Your task to perform on an android device: Open maps Image 0: 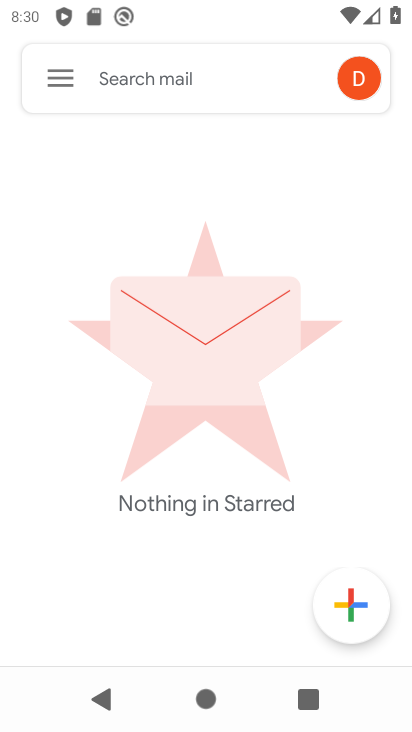
Step 0: press home button
Your task to perform on an android device: Open maps Image 1: 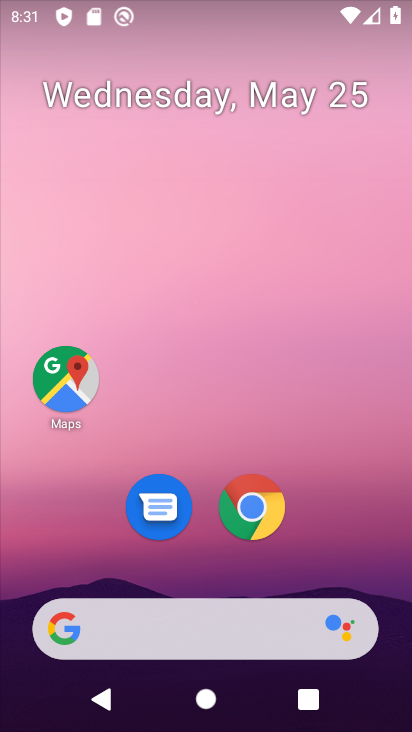
Step 1: click (54, 393)
Your task to perform on an android device: Open maps Image 2: 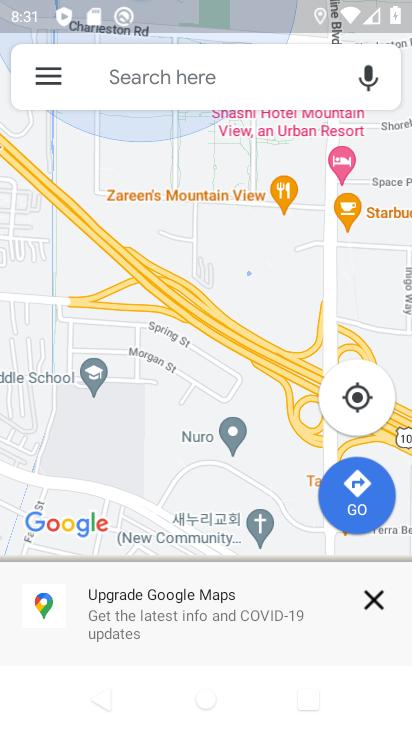
Step 2: task complete